Your task to perform on an android device: open a new tab in the chrome app Image 0: 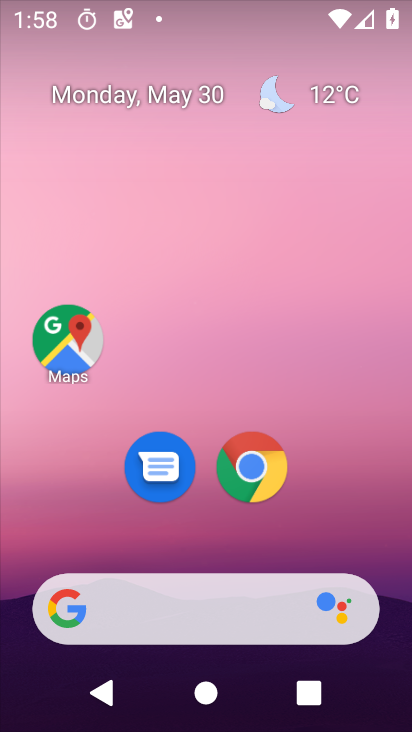
Step 0: click (248, 473)
Your task to perform on an android device: open a new tab in the chrome app Image 1: 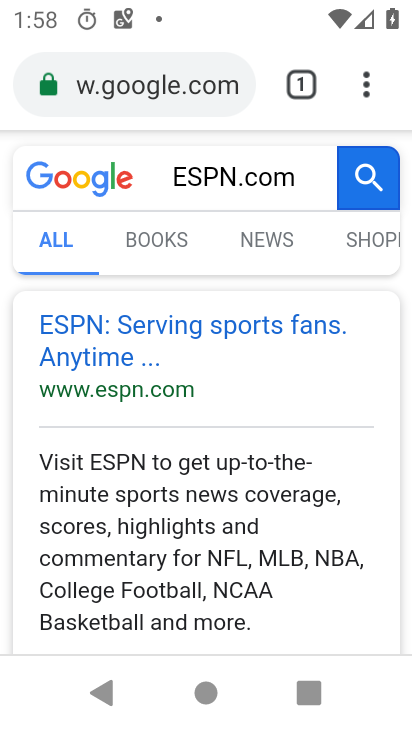
Step 1: click (361, 81)
Your task to perform on an android device: open a new tab in the chrome app Image 2: 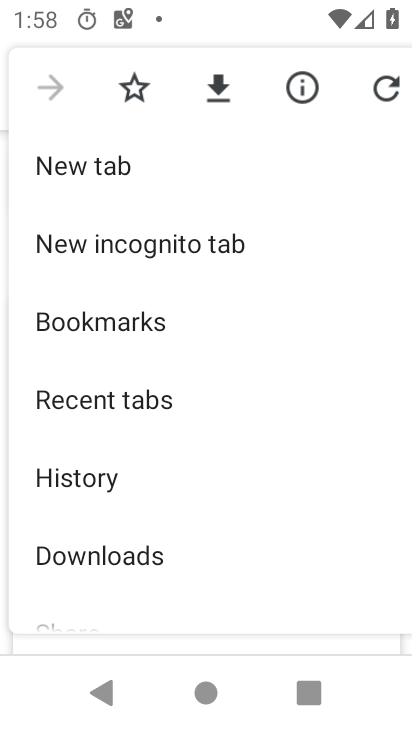
Step 2: click (106, 165)
Your task to perform on an android device: open a new tab in the chrome app Image 3: 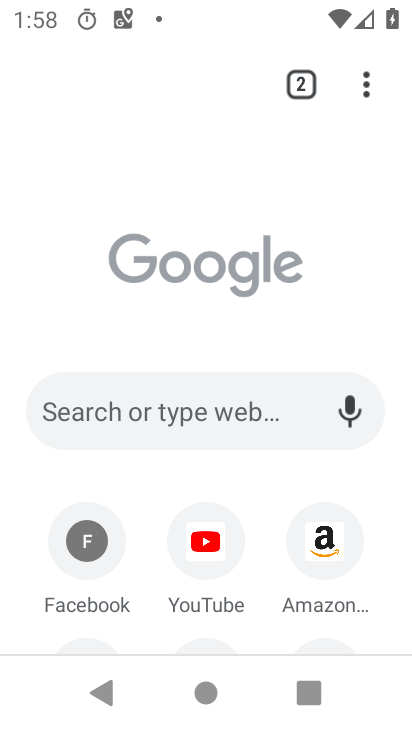
Step 3: task complete